Your task to perform on an android device: open a new tab in the chrome app Image 0: 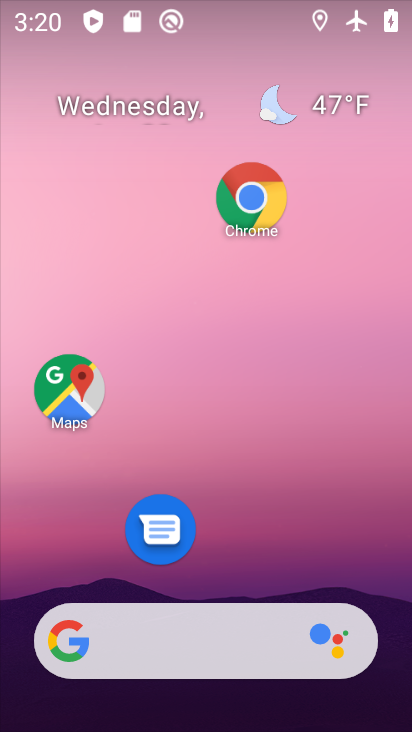
Step 0: click (255, 209)
Your task to perform on an android device: open a new tab in the chrome app Image 1: 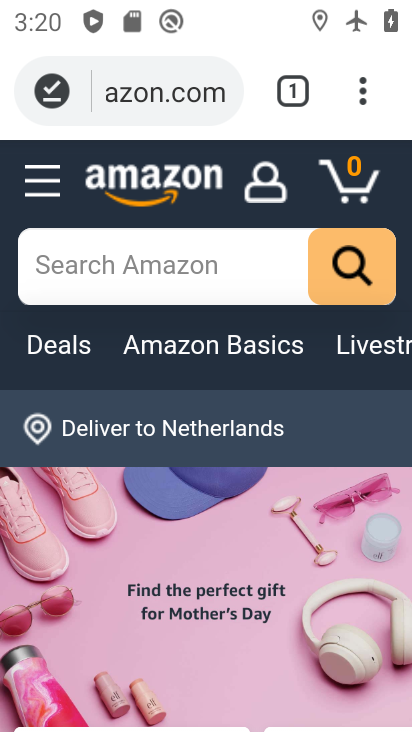
Step 1: click (361, 99)
Your task to perform on an android device: open a new tab in the chrome app Image 2: 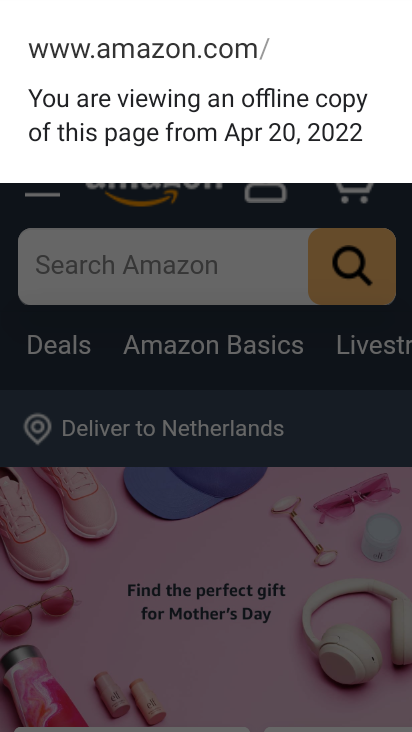
Step 2: click (268, 299)
Your task to perform on an android device: open a new tab in the chrome app Image 3: 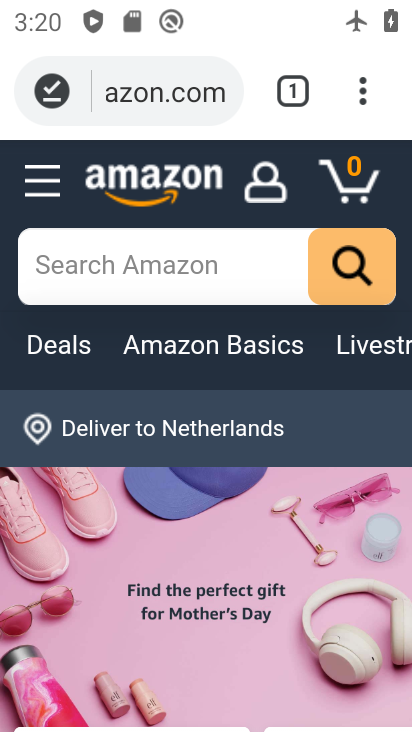
Step 3: click (360, 89)
Your task to perform on an android device: open a new tab in the chrome app Image 4: 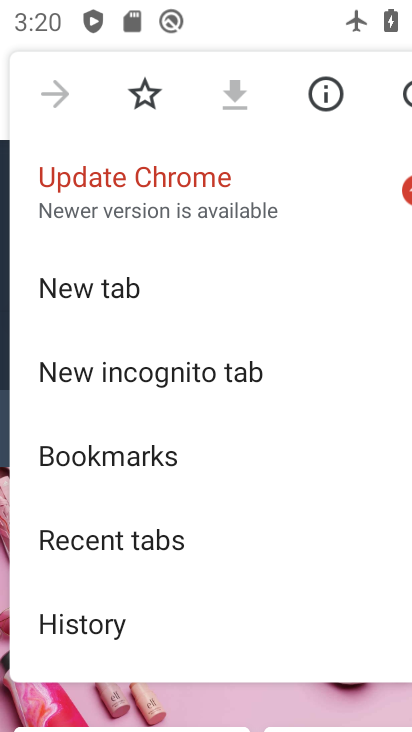
Step 4: click (126, 303)
Your task to perform on an android device: open a new tab in the chrome app Image 5: 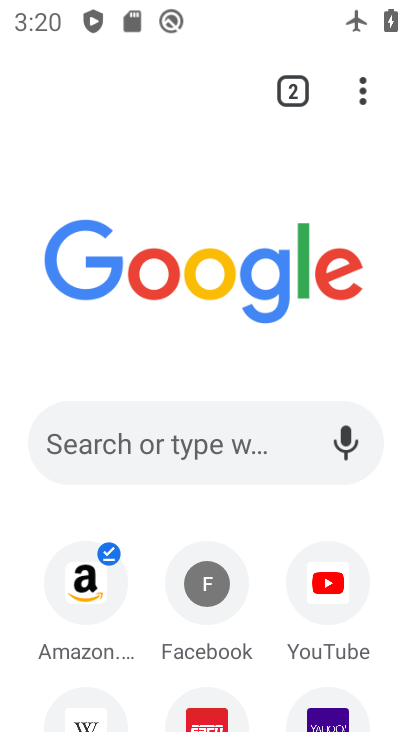
Step 5: task complete